Your task to perform on an android device: change text size in settings app Image 0: 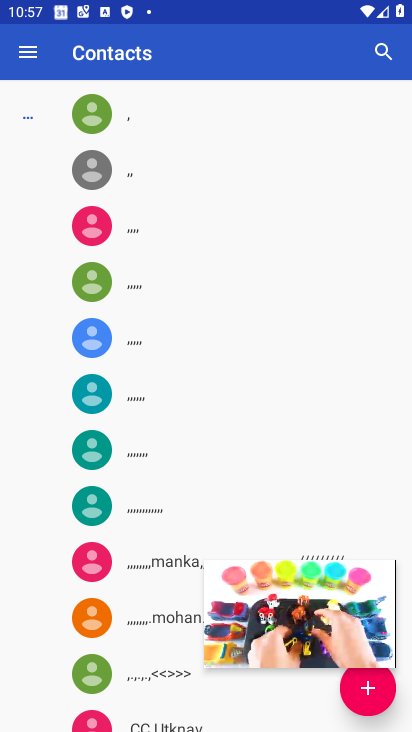
Step 0: press home button
Your task to perform on an android device: change text size in settings app Image 1: 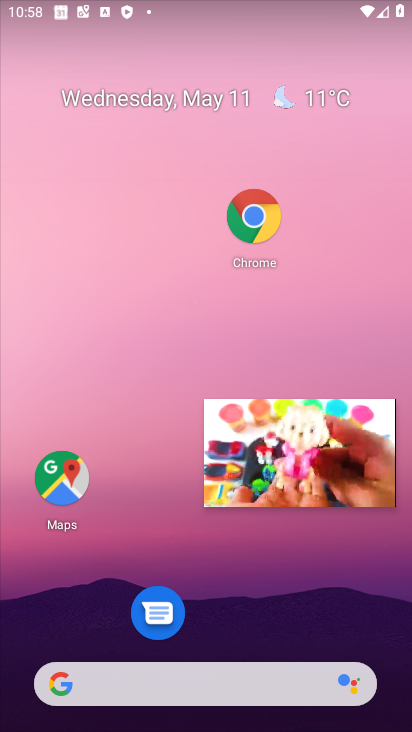
Step 1: drag from (204, 613) to (238, 228)
Your task to perform on an android device: change text size in settings app Image 2: 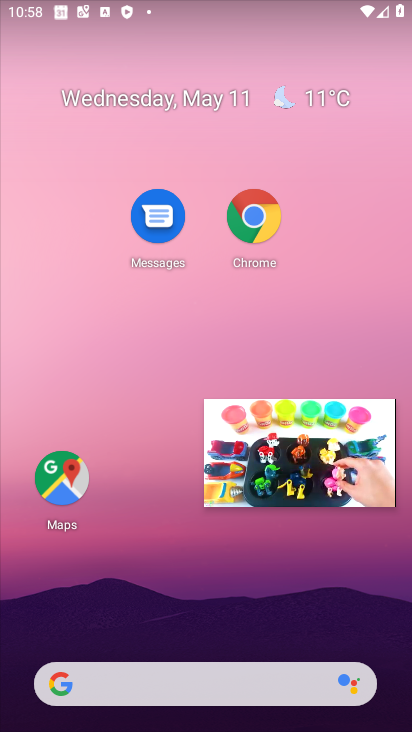
Step 2: drag from (221, 608) to (222, 131)
Your task to perform on an android device: change text size in settings app Image 3: 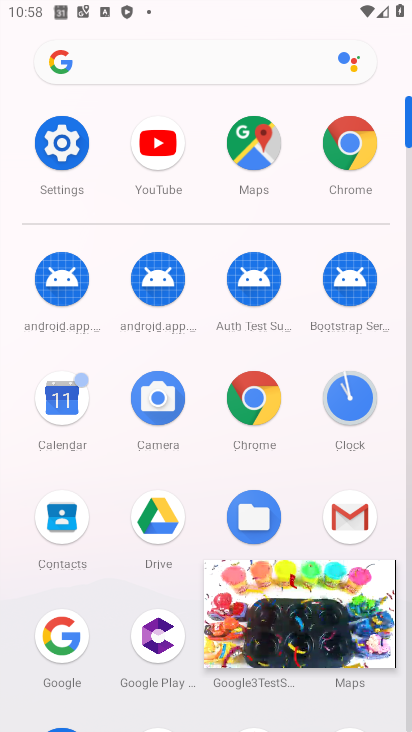
Step 3: click (75, 161)
Your task to perform on an android device: change text size in settings app Image 4: 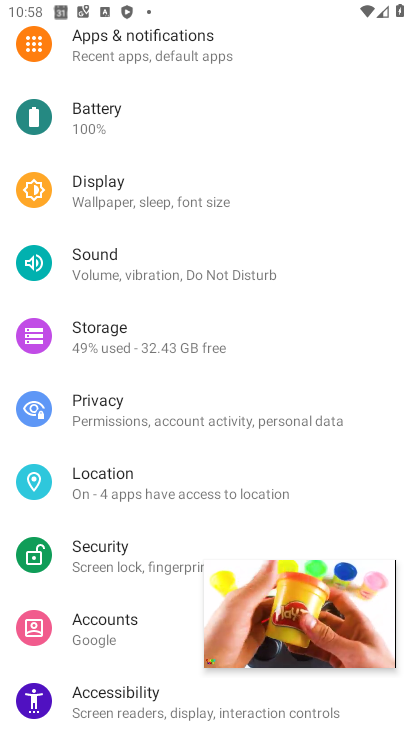
Step 4: click (142, 200)
Your task to perform on an android device: change text size in settings app Image 5: 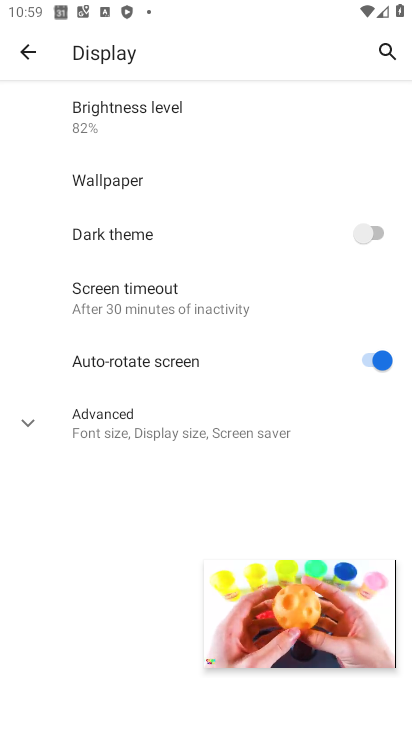
Step 5: click (162, 438)
Your task to perform on an android device: change text size in settings app Image 6: 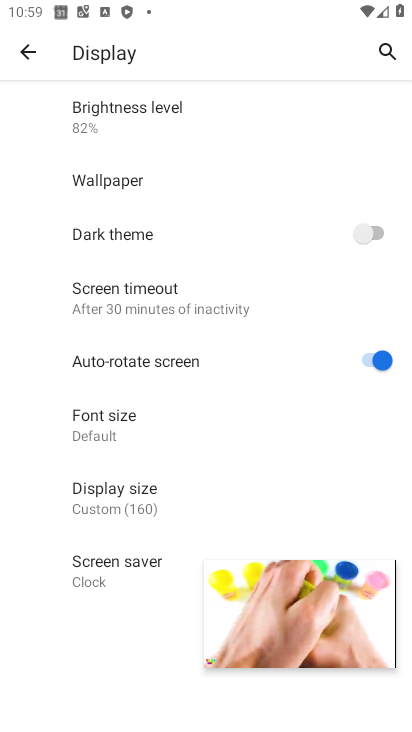
Step 6: click (147, 438)
Your task to perform on an android device: change text size in settings app Image 7: 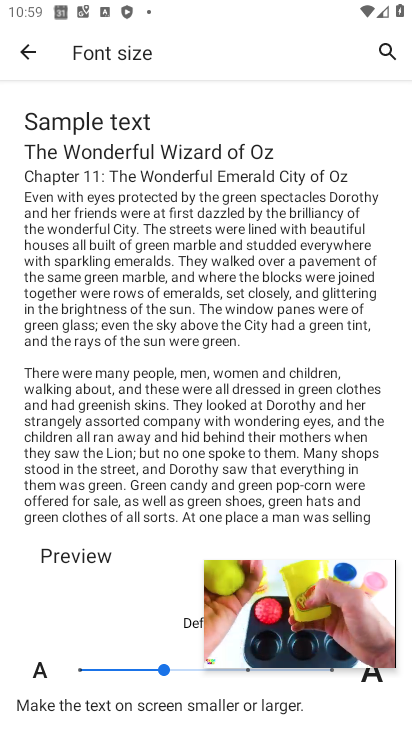
Step 7: click (75, 664)
Your task to perform on an android device: change text size in settings app Image 8: 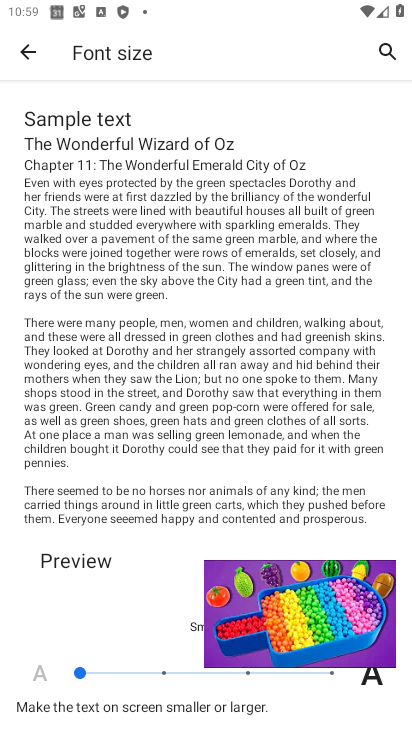
Step 8: task complete